Your task to perform on an android device: install app "Truecaller" Image 0: 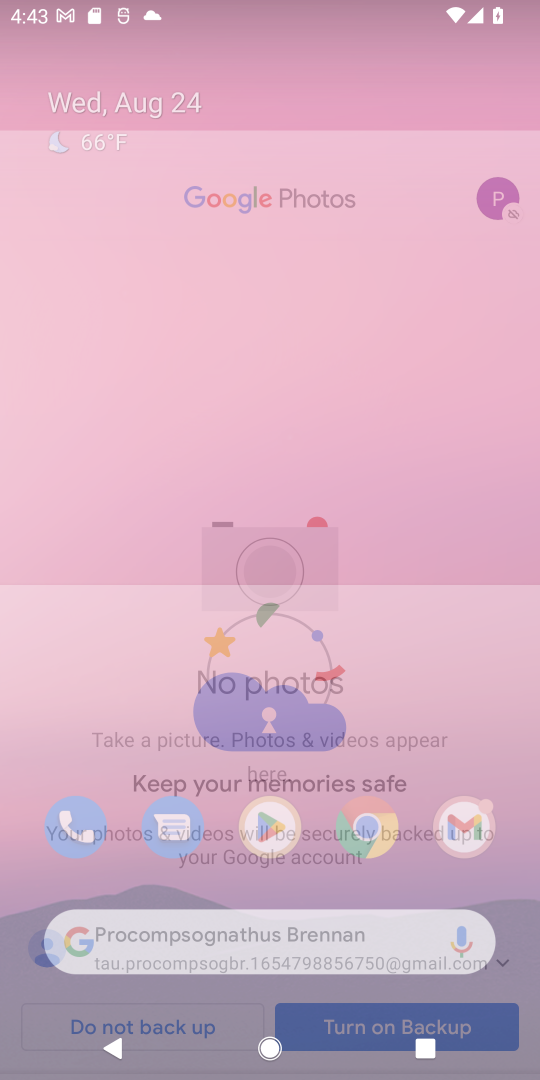
Step 0: press home button
Your task to perform on an android device: install app "Truecaller" Image 1: 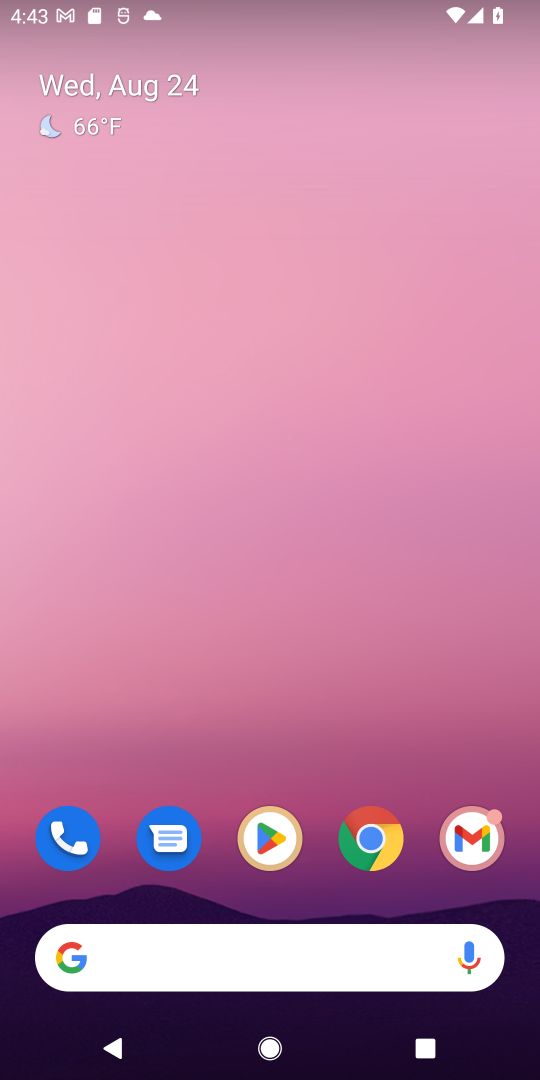
Step 1: click (265, 830)
Your task to perform on an android device: install app "Truecaller" Image 2: 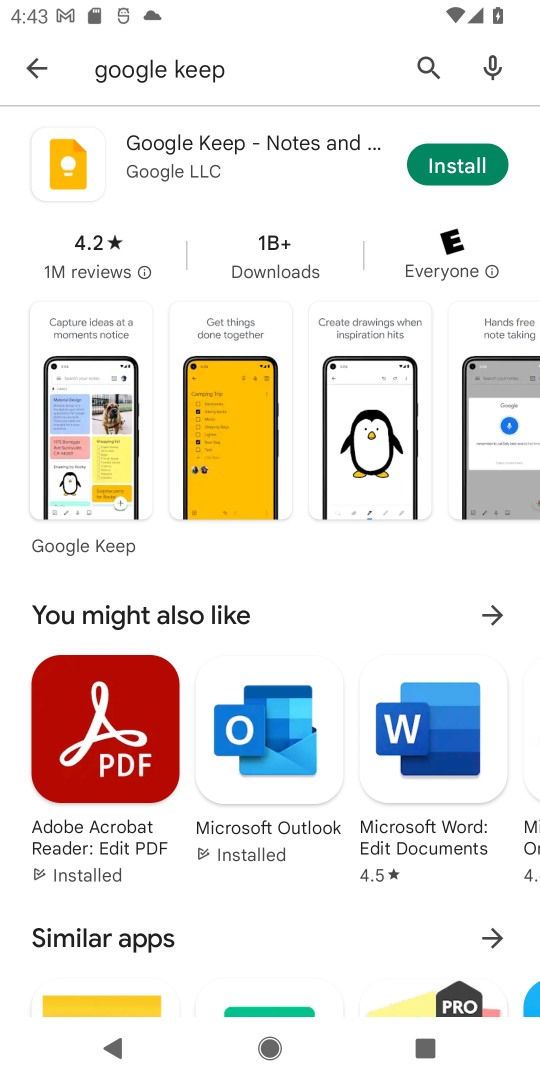
Step 2: click (432, 62)
Your task to perform on an android device: install app "Truecaller" Image 3: 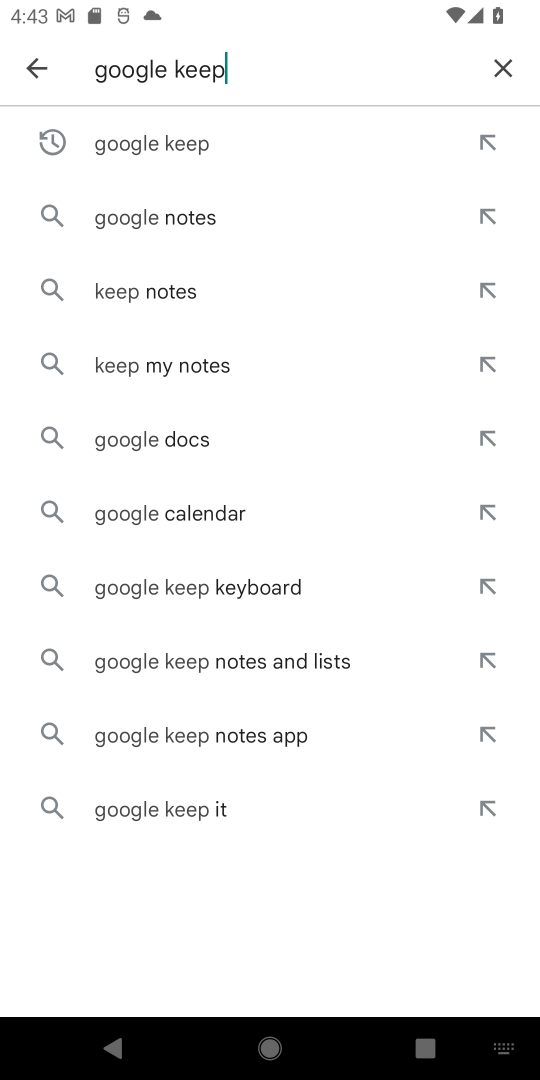
Step 3: click (499, 69)
Your task to perform on an android device: install app "Truecaller" Image 4: 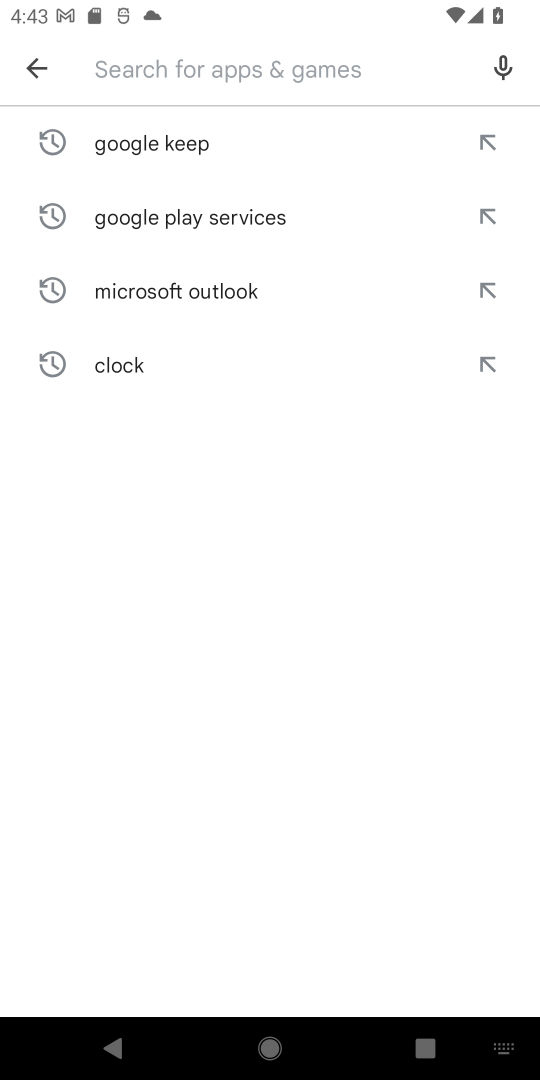
Step 4: type "Truecaller"
Your task to perform on an android device: install app "Truecaller" Image 5: 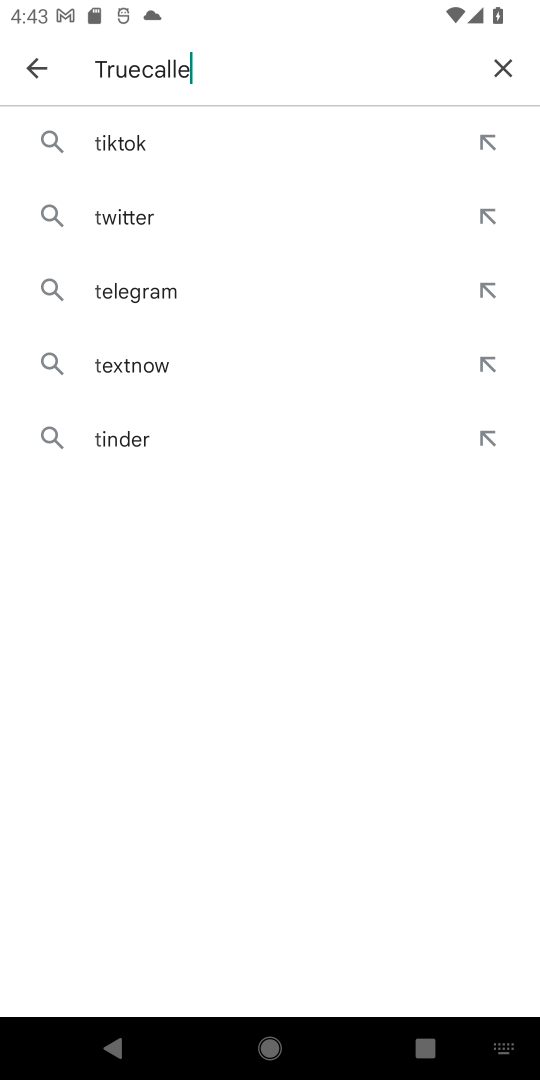
Step 5: type ""
Your task to perform on an android device: install app "Truecaller" Image 6: 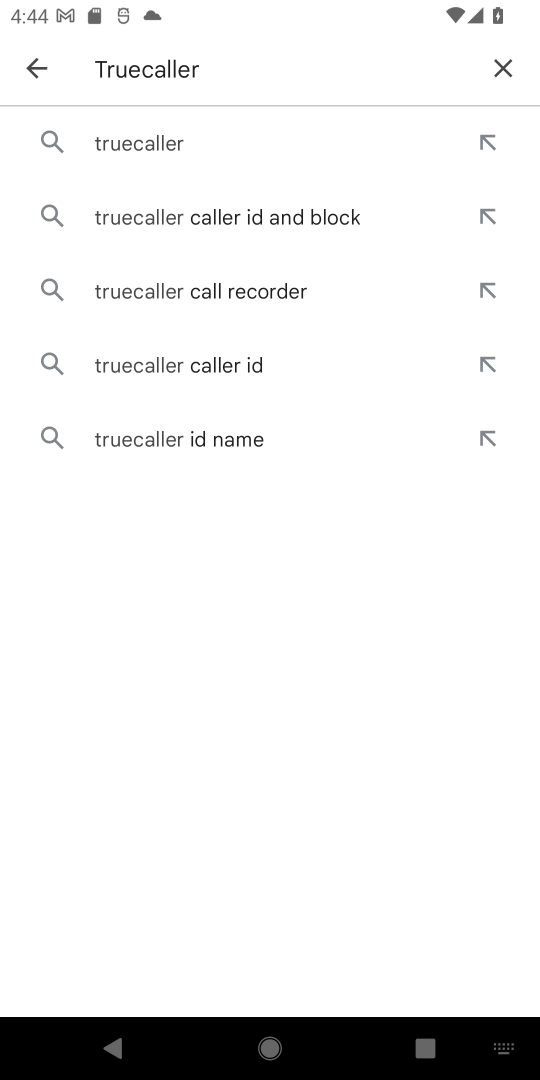
Step 6: click (214, 156)
Your task to perform on an android device: install app "Truecaller" Image 7: 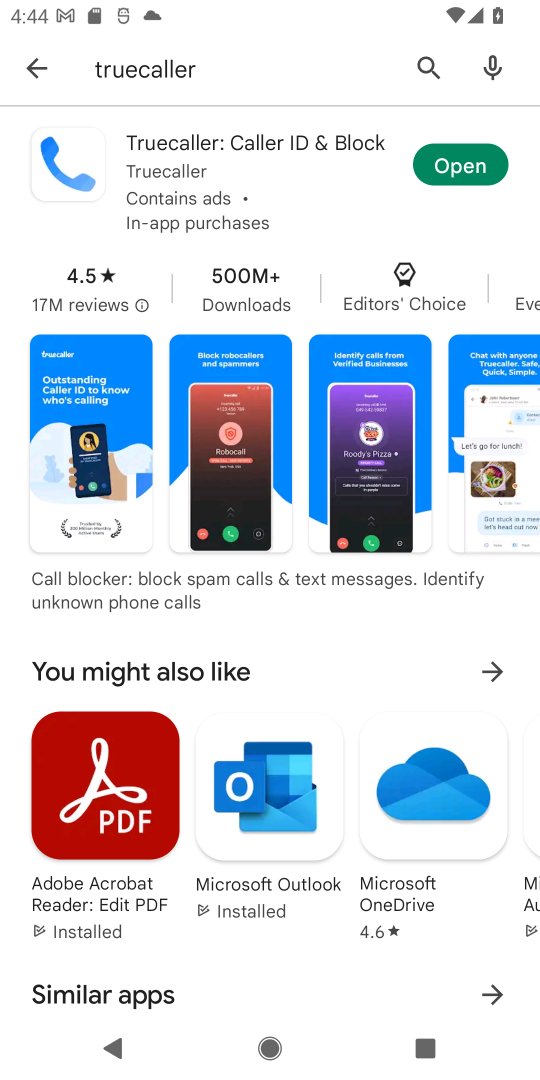
Step 7: click (435, 154)
Your task to perform on an android device: install app "Truecaller" Image 8: 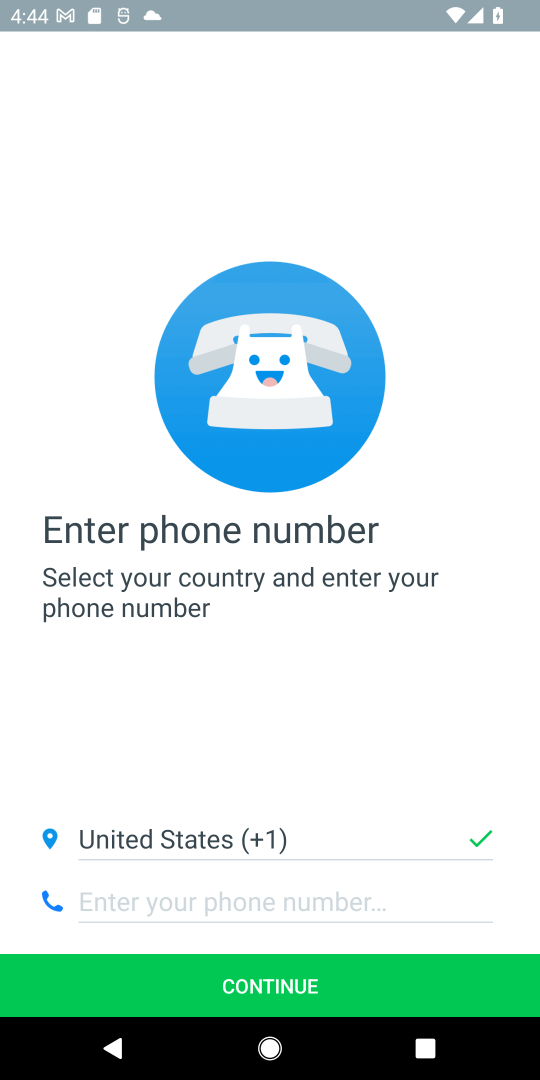
Step 8: click (254, 979)
Your task to perform on an android device: install app "Truecaller" Image 9: 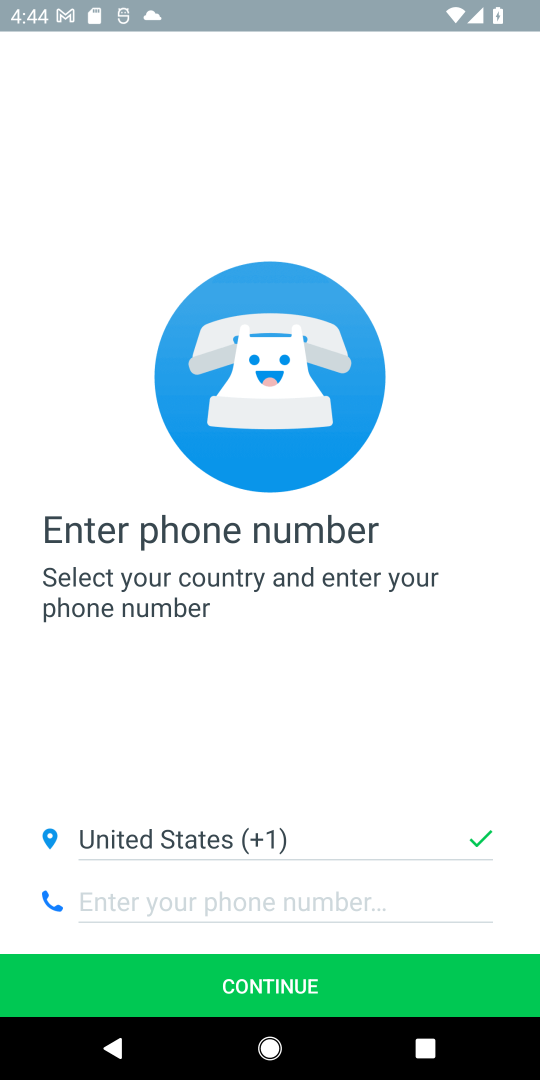
Step 9: click (229, 902)
Your task to perform on an android device: install app "Truecaller" Image 10: 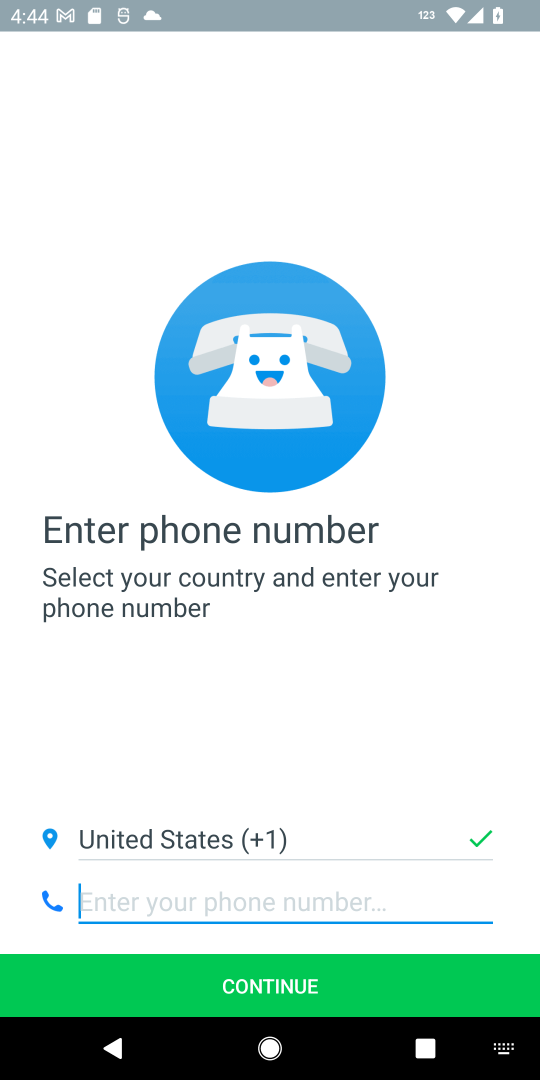
Step 10: type "9876543210"
Your task to perform on an android device: install app "Truecaller" Image 11: 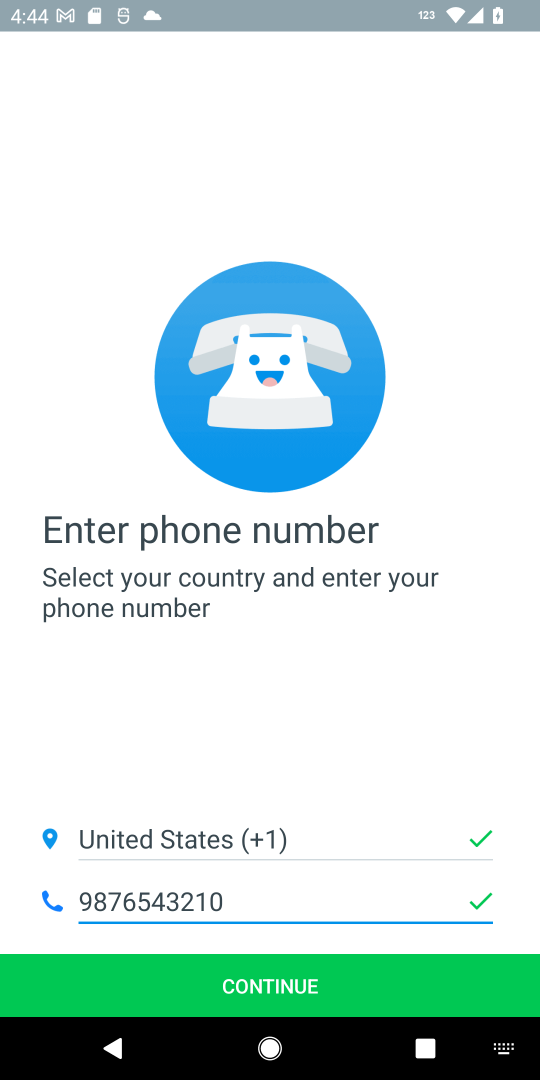
Step 11: click (288, 965)
Your task to perform on an android device: install app "Truecaller" Image 12: 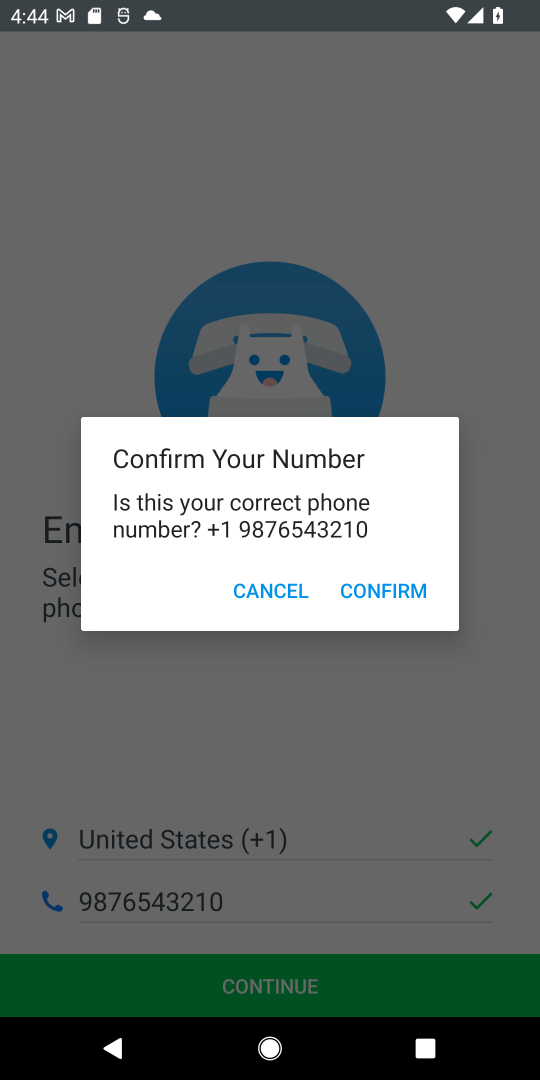
Step 12: click (393, 589)
Your task to perform on an android device: install app "Truecaller" Image 13: 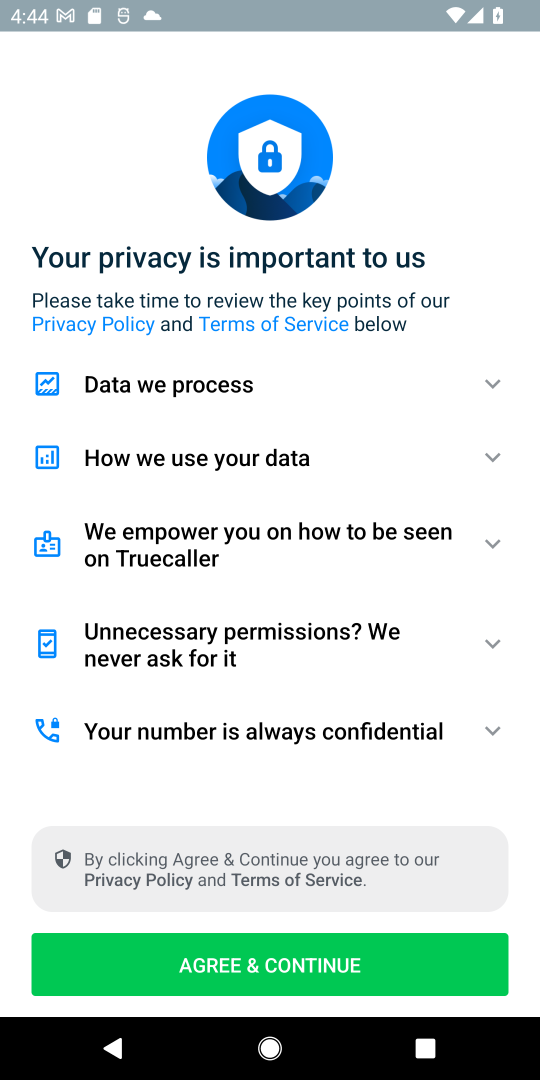
Step 13: click (278, 981)
Your task to perform on an android device: install app "Truecaller" Image 14: 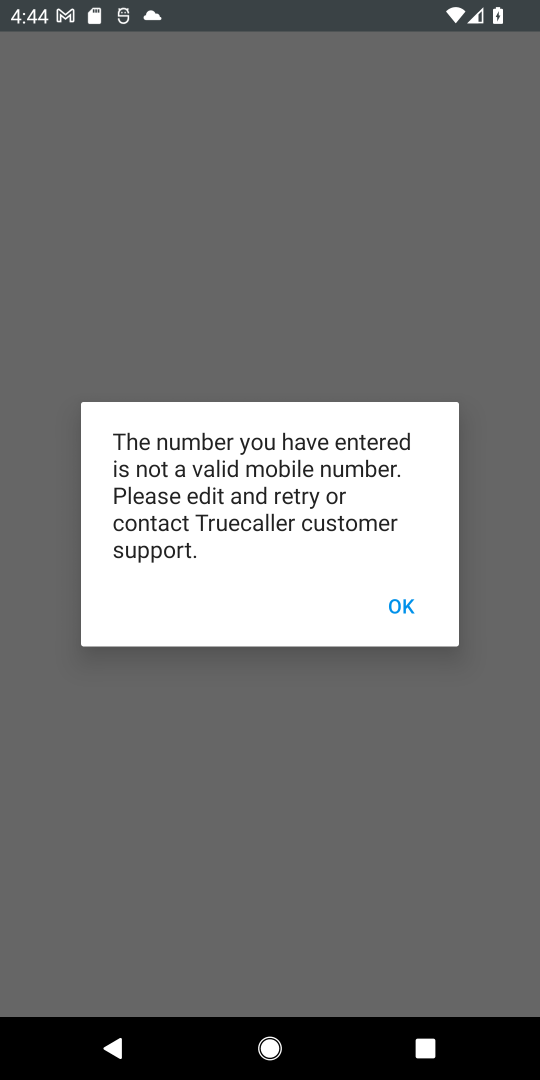
Step 14: click (404, 605)
Your task to perform on an android device: install app "Truecaller" Image 15: 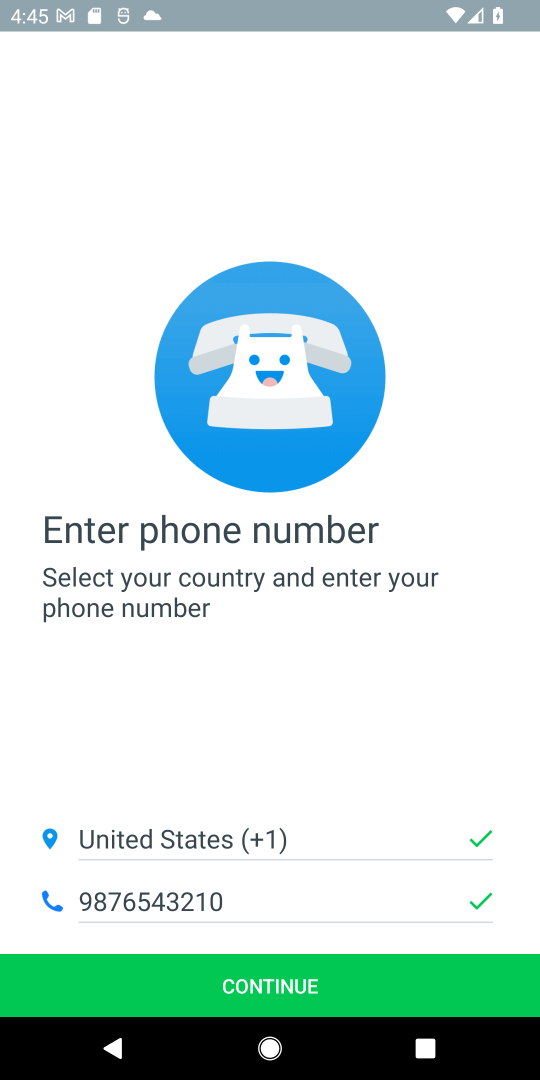
Step 15: click (349, 897)
Your task to perform on an android device: install app "Truecaller" Image 16: 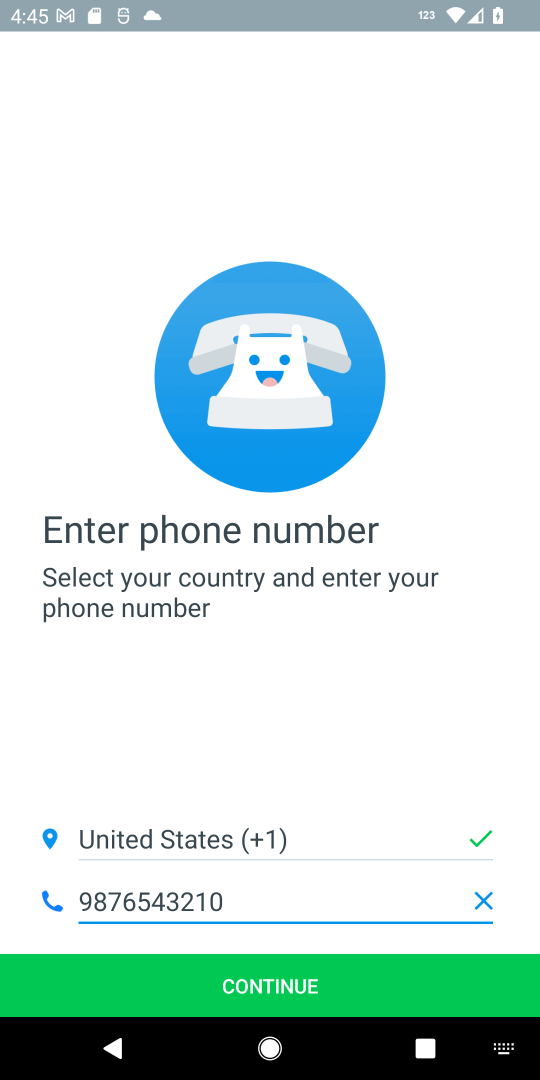
Step 16: type "7"
Your task to perform on an android device: install app "Truecaller" Image 17: 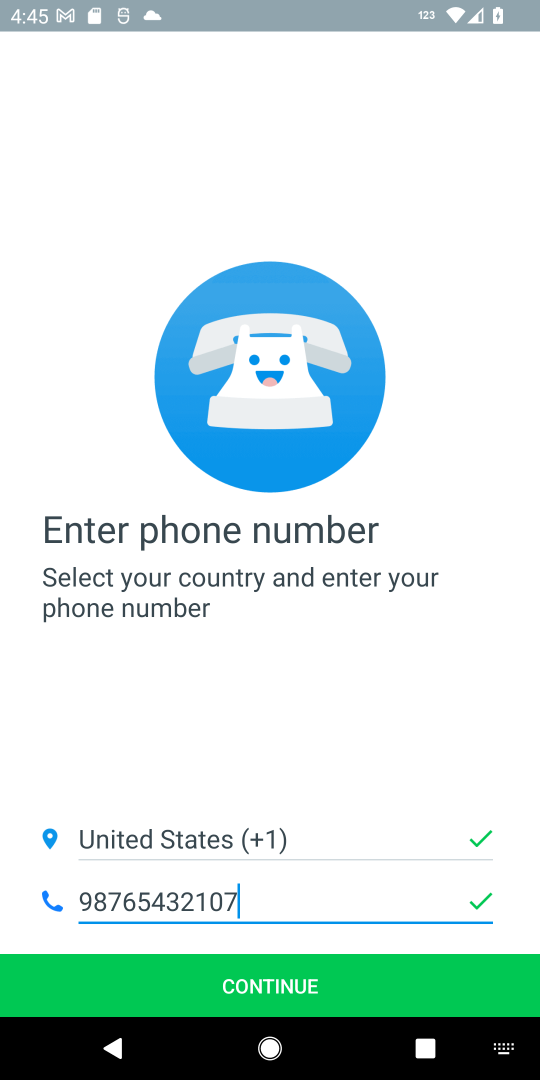
Step 17: click (312, 979)
Your task to perform on an android device: install app "Truecaller" Image 18: 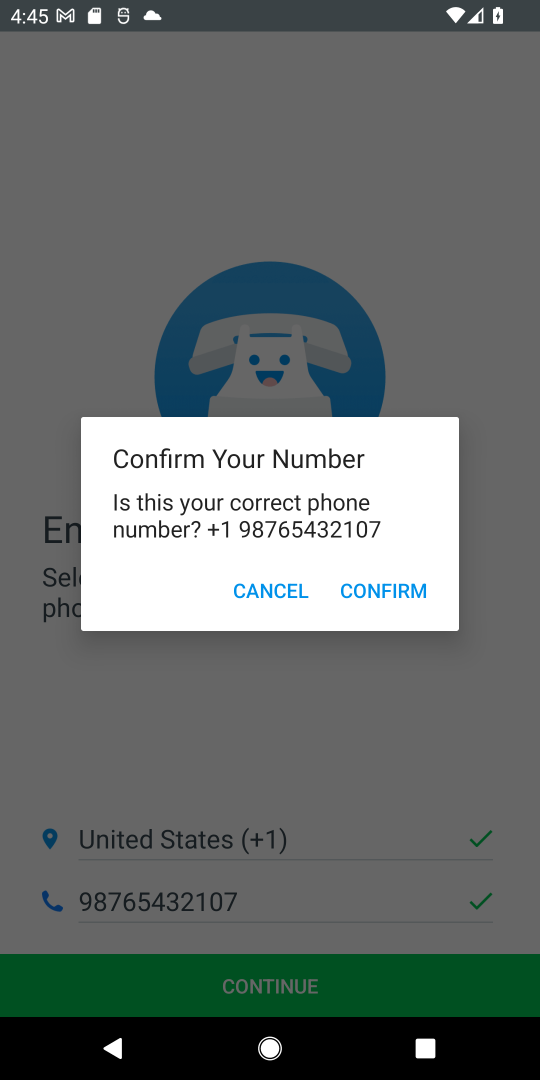
Step 18: click (407, 610)
Your task to perform on an android device: install app "Truecaller" Image 19: 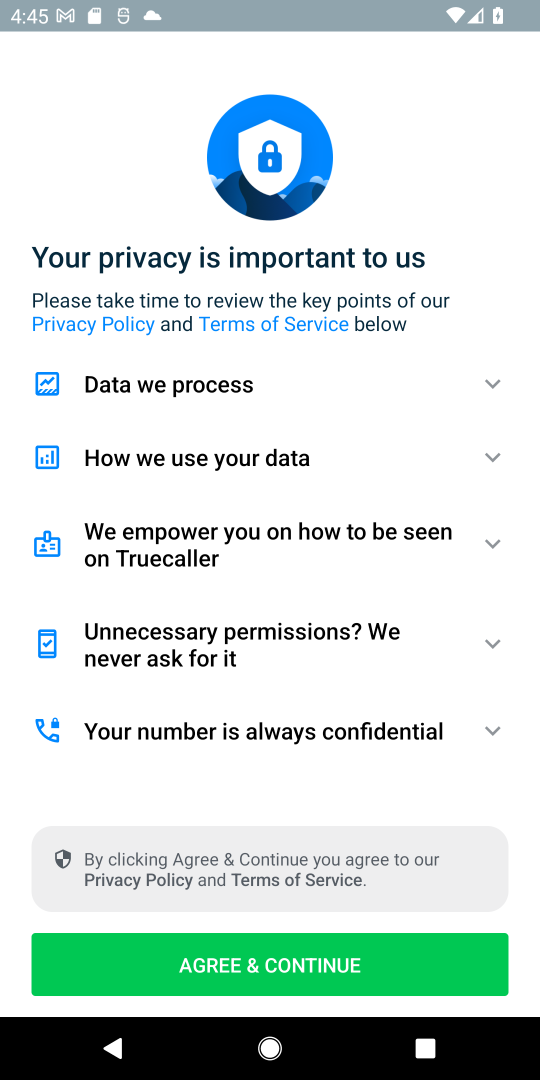
Step 19: click (331, 983)
Your task to perform on an android device: install app "Truecaller" Image 20: 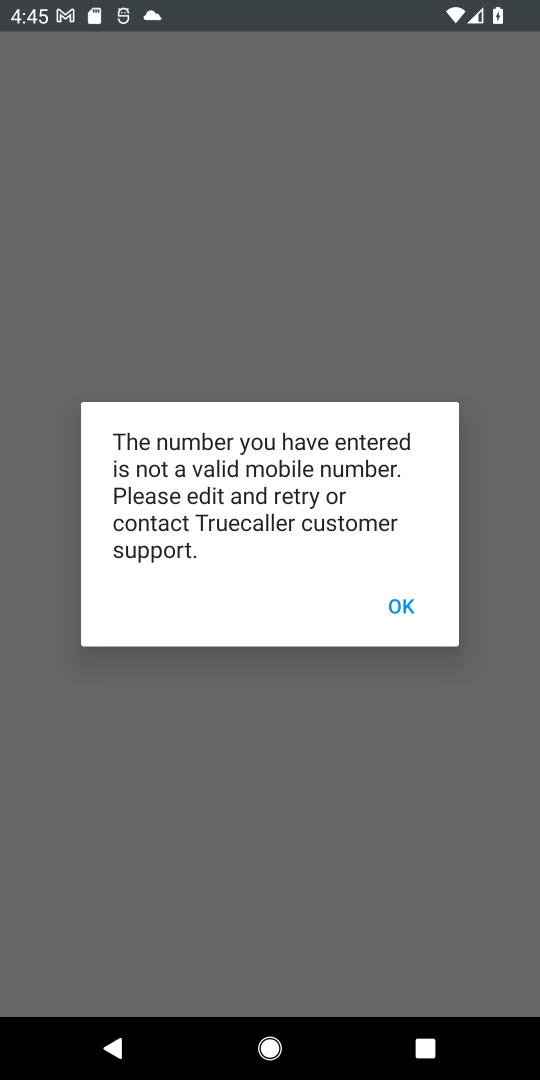
Step 20: click (405, 618)
Your task to perform on an android device: install app "Truecaller" Image 21: 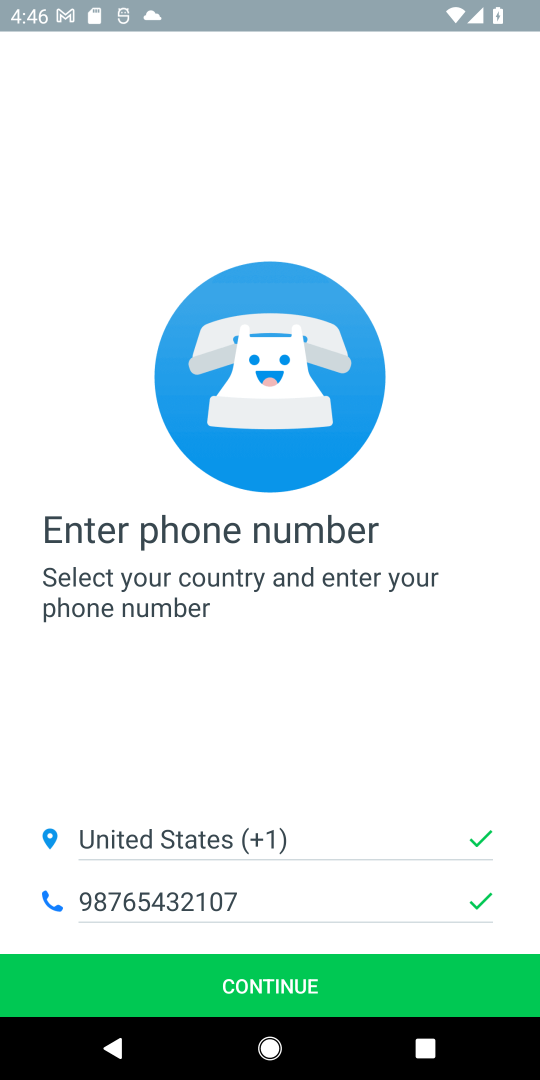
Step 21: click (295, 985)
Your task to perform on an android device: install app "Truecaller" Image 22: 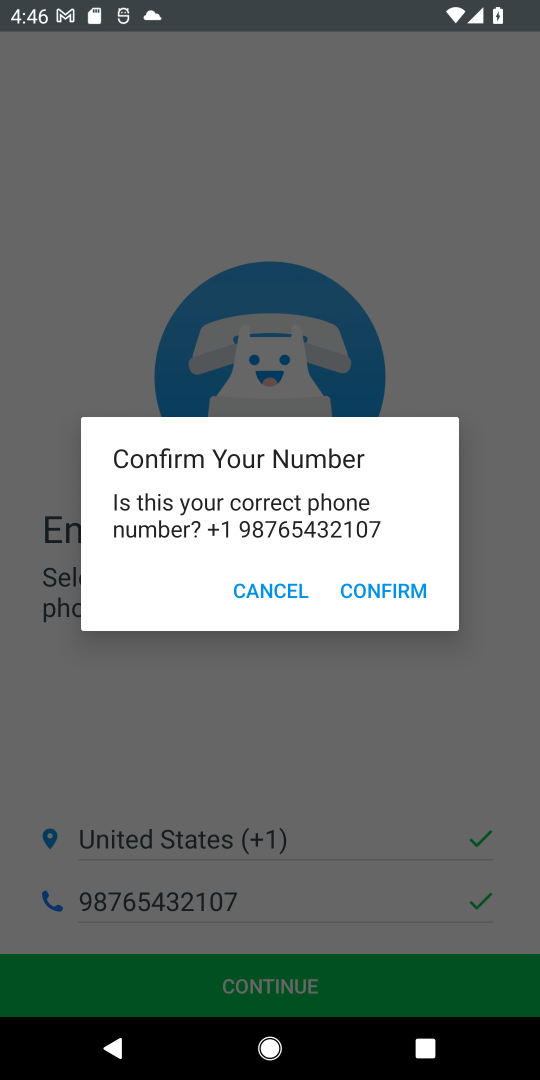
Step 22: task complete